Your task to perform on an android device: Go to CNN.com Image 0: 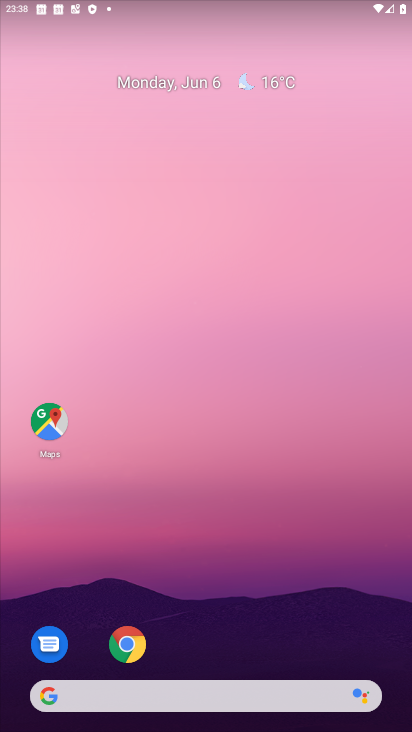
Step 0: drag from (234, 569) to (226, 30)
Your task to perform on an android device: Go to CNN.com Image 1: 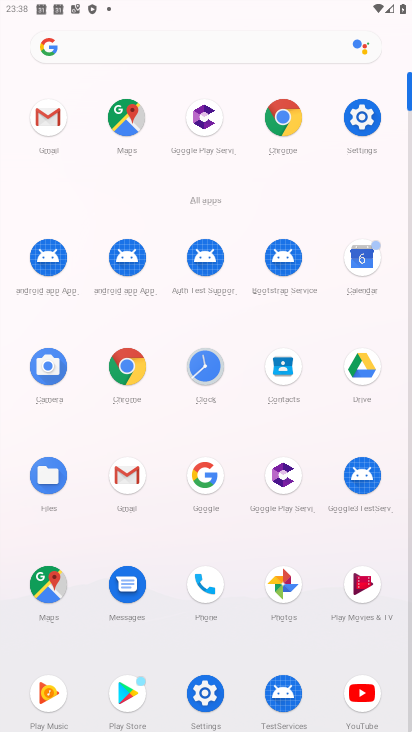
Step 1: drag from (21, 539) to (18, 189)
Your task to perform on an android device: Go to CNN.com Image 2: 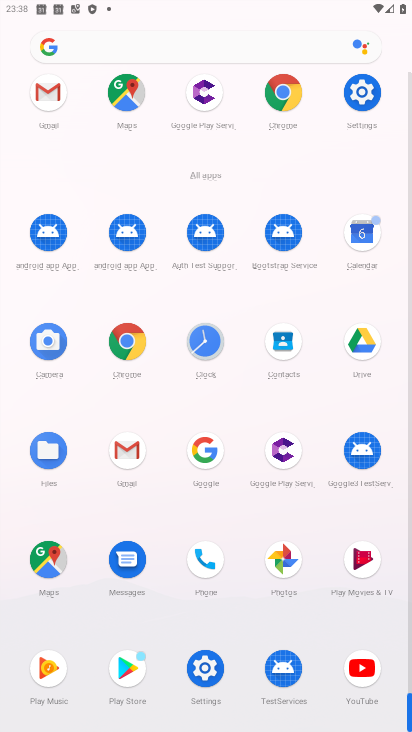
Step 2: click (124, 338)
Your task to perform on an android device: Go to CNN.com Image 3: 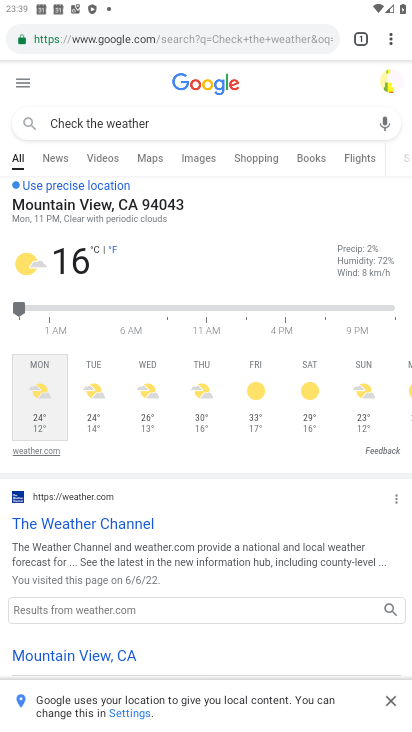
Step 3: click (223, 34)
Your task to perform on an android device: Go to CNN.com Image 4: 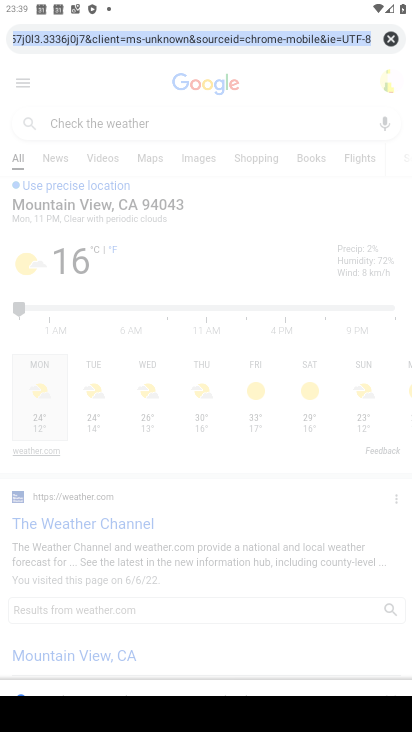
Step 4: click (389, 38)
Your task to perform on an android device: Go to CNN.com Image 5: 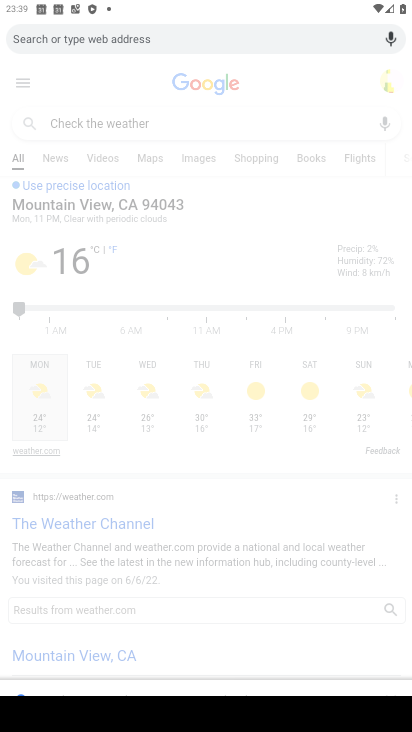
Step 5: type "CNN.com"
Your task to perform on an android device: Go to CNN.com Image 6: 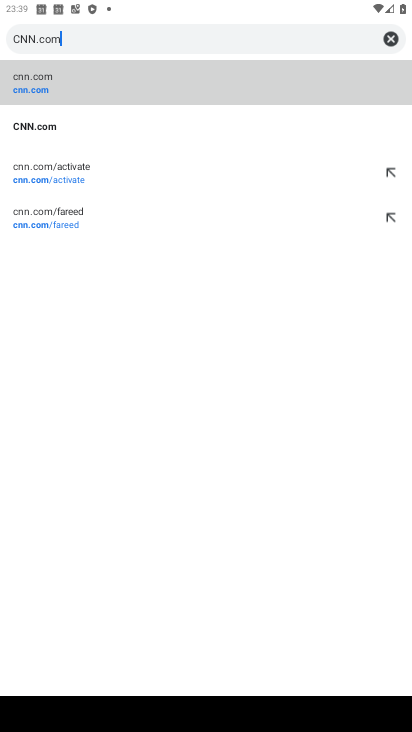
Step 6: click (98, 87)
Your task to perform on an android device: Go to CNN.com Image 7: 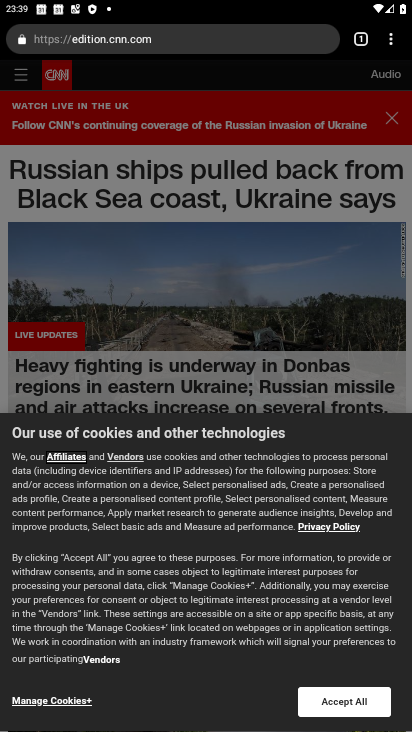
Step 7: task complete